Your task to perform on an android device: Go to accessibility settings Image 0: 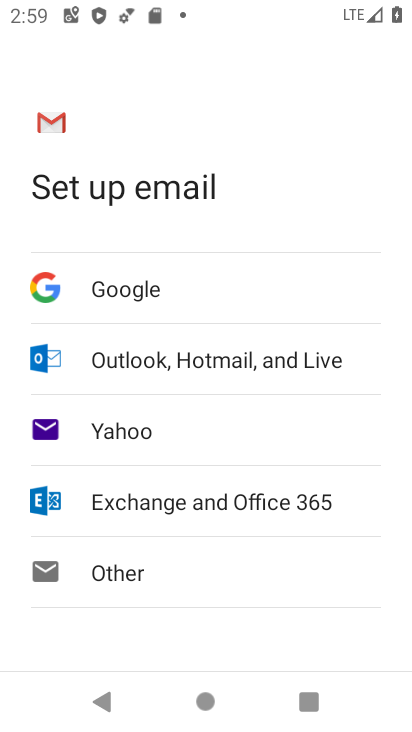
Step 0: press home button
Your task to perform on an android device: Go to accessibility settings Image 1: 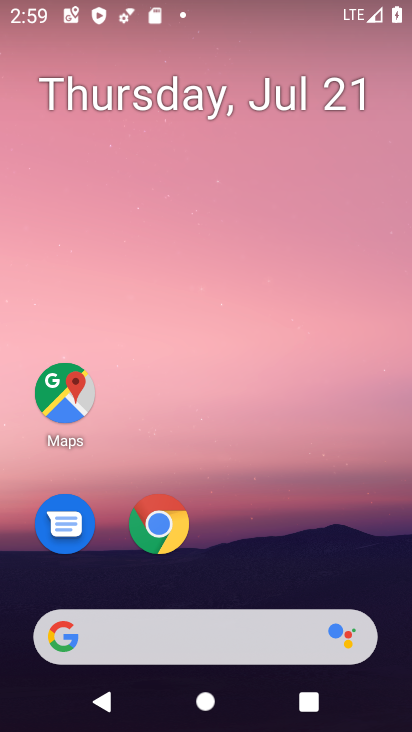
Step 1: drag from (292, 367) to (292, 43)
Your task to perform on an android device: Go to accessibility settings Image 2: 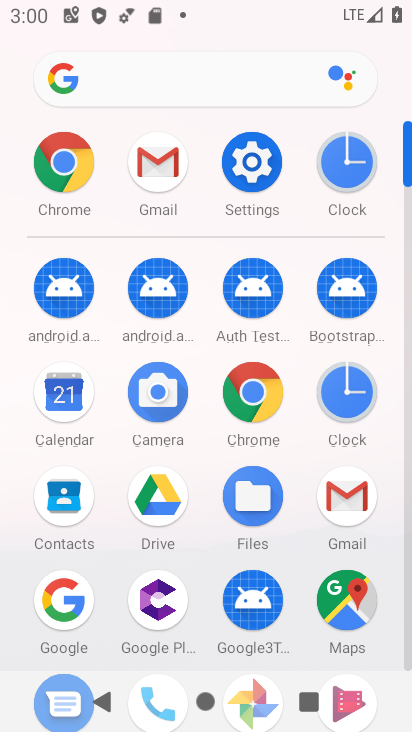
Step 2: click (251, 156)
Your task to perform on an android device: Go to accessibility settings Image 3: 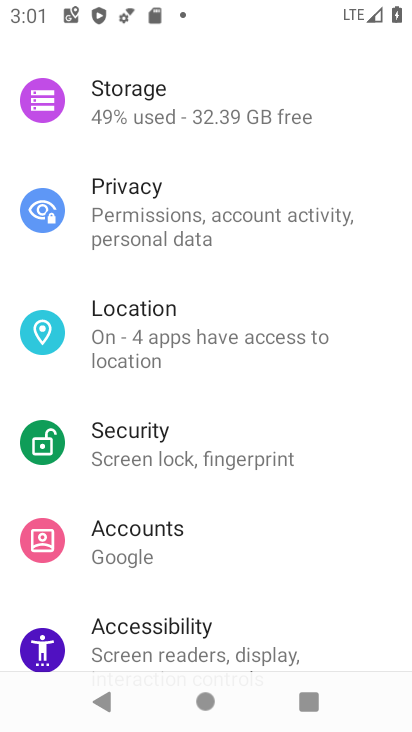
Step 3: click (208, 633)
Your task to perform on an android device: Go to accessibility settings Image 4: 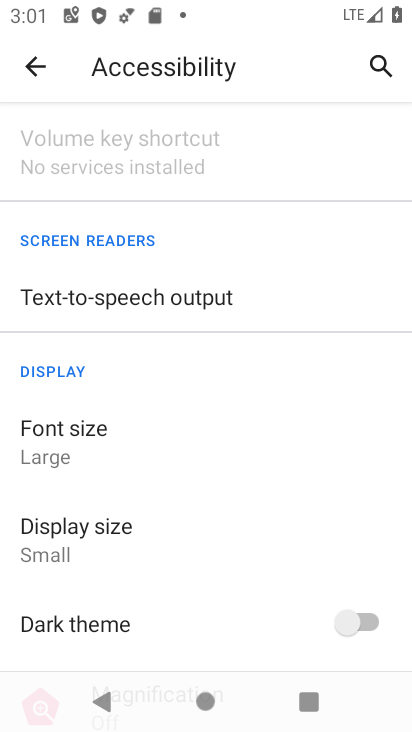
Step 4: task complete